Your task to perform on an android device: Go to accessibility settings Image 0: 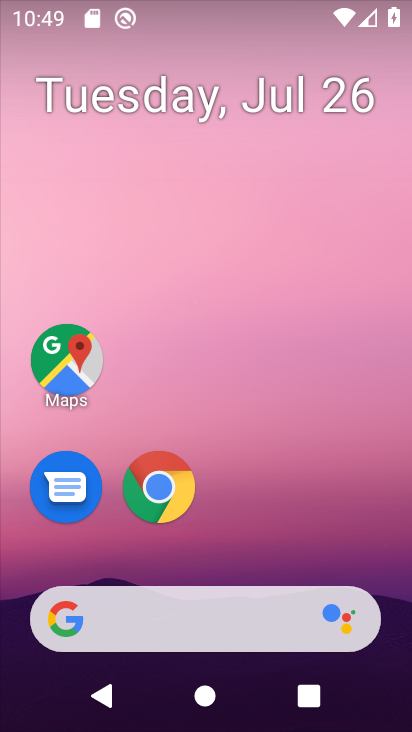
Step 0: drag from (231, 563) to (323, 29)
Your task to perform on an android device: Go to accessibility settings Image 1: 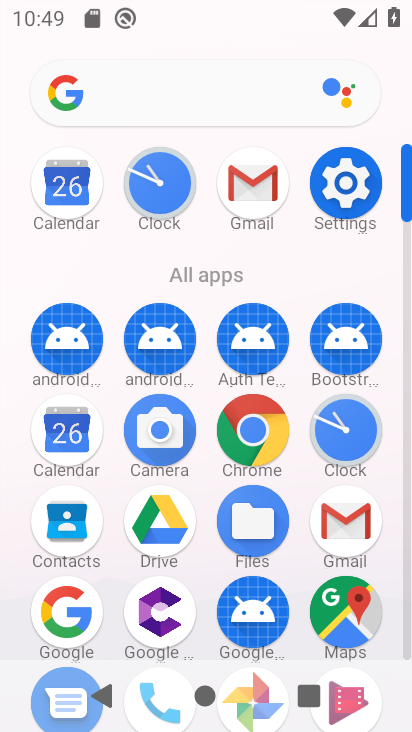
Step 1: click (339, 175)
Your task to perform on an android device: Go to accessibility settings Image 2: 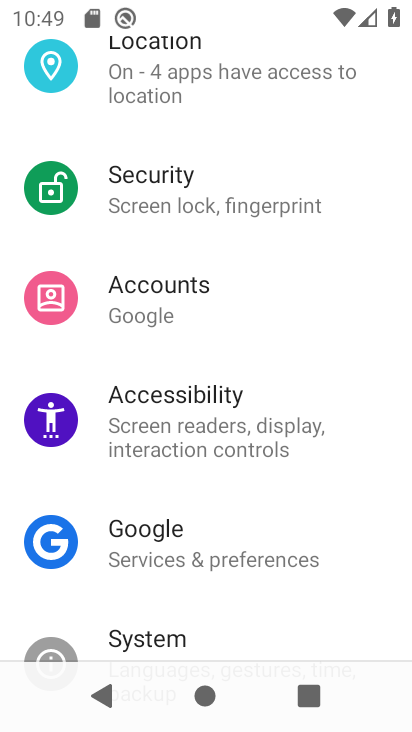
Step 2: click (190, 418)
Your task to perform on an android device: Go to accessibility settings Image 3: 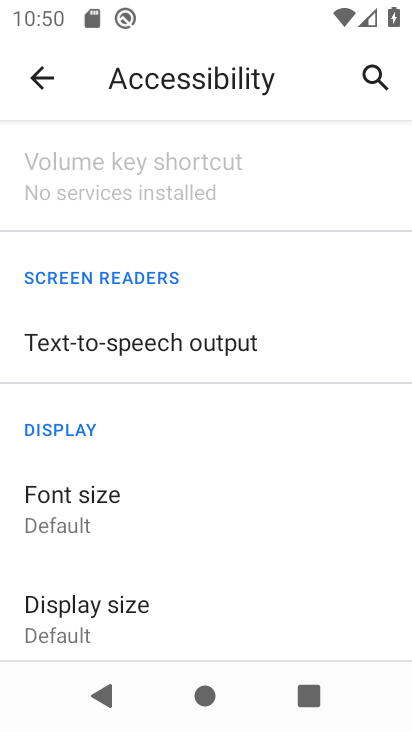
Step 3: task complete